Your task to perform on an android device: turn notification dots off Image 0: 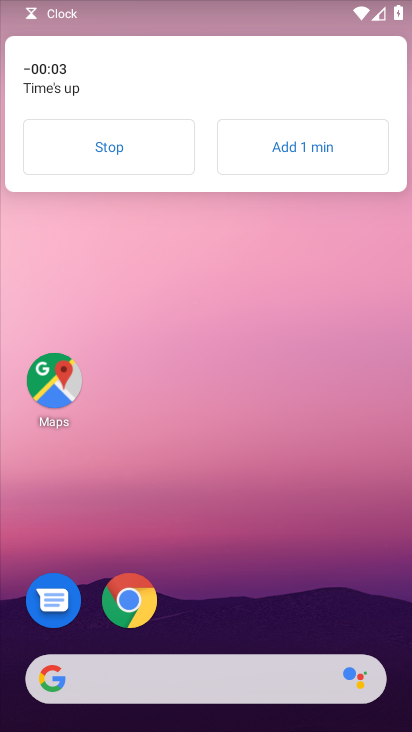
Step 0: drag from (218, 726) to (209, 107)
Your task to perform on an android device: turn notification dots off Image 1: 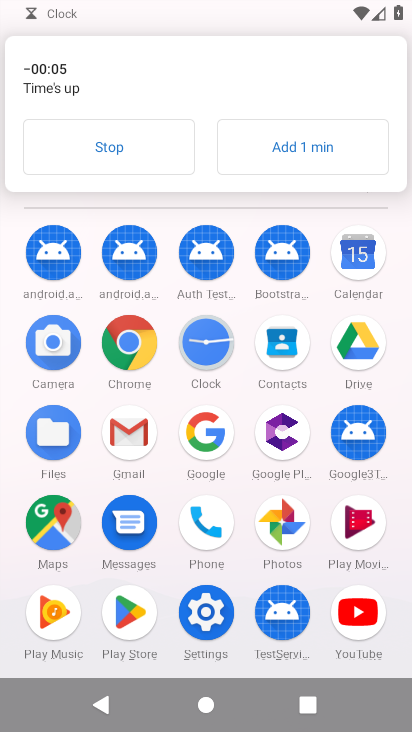
Step 1: click (204, 612)
Your task to perform on an android device: turn notification dots off Image 2: 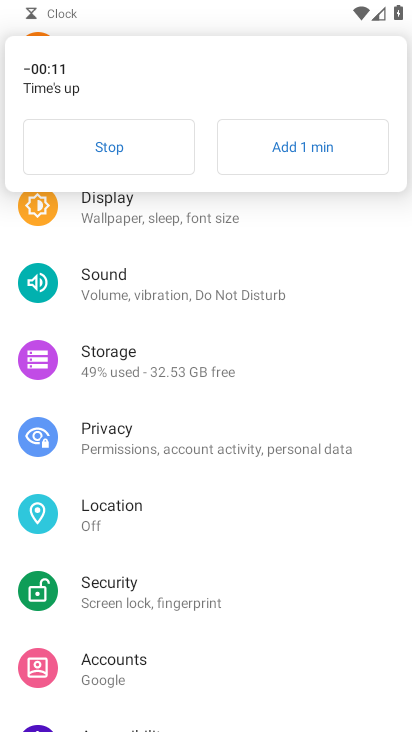
Step 2: click (121, 143)
Your task to perform on an android device: turn notification dots off Image 3: 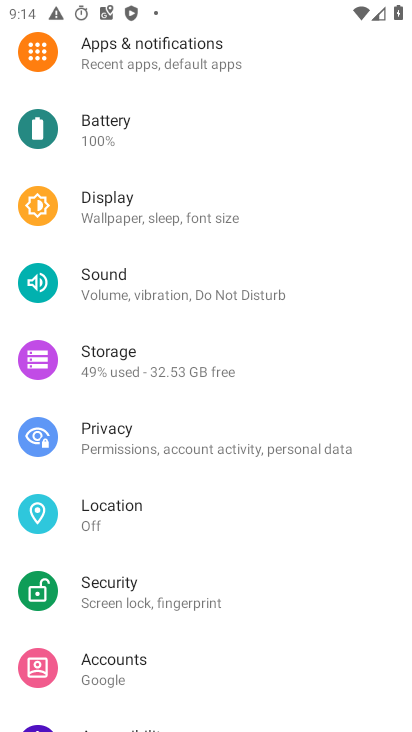
Step 3: drag from (160, 145) to (167, 303)
Your task to perform on an android device: turn notification dots off Image 4: 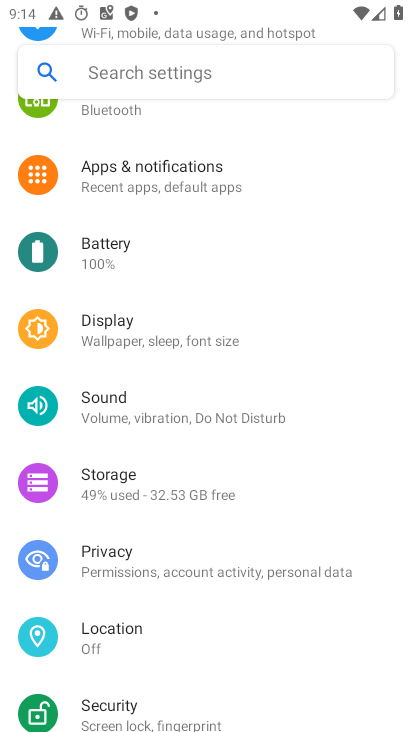
Step 4: click (150, 186)
Your task to perform on an android device: turn notification dots off Image 5: 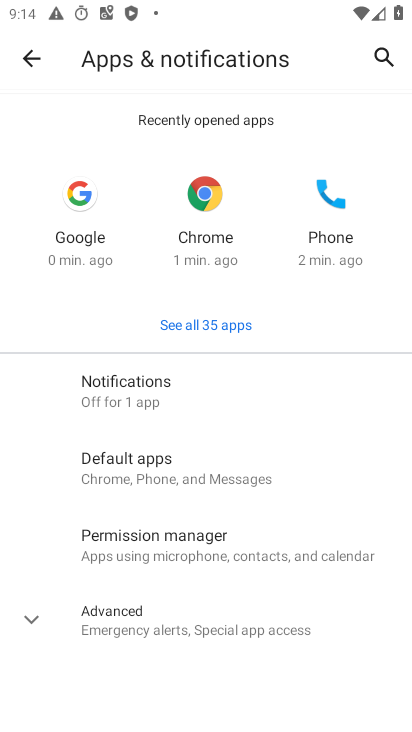
Step 5: click (131, 389)
Your task to perform on an android device: turn notification dots off Image 6: 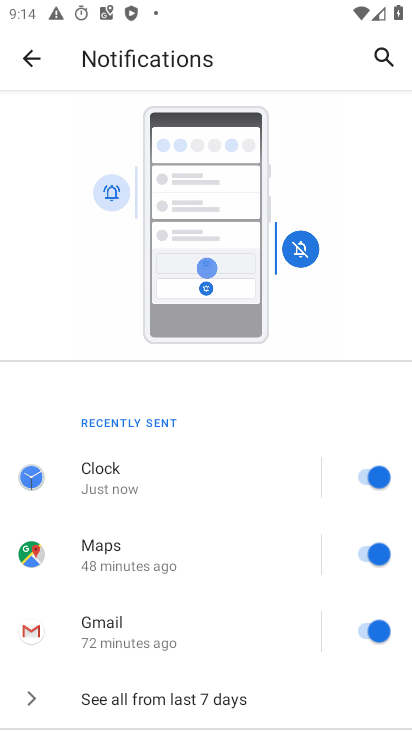
Step 6: drag from (218, 687) to (228, 358)
Your task to perform on an android device: turn notification dots off Image 7: 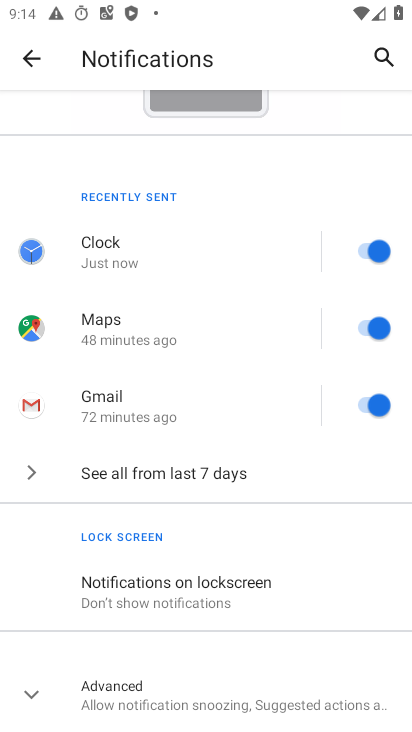
Step 7: click (166, 699)
Your task to perform on an android device: turn notification dots off Image 8: 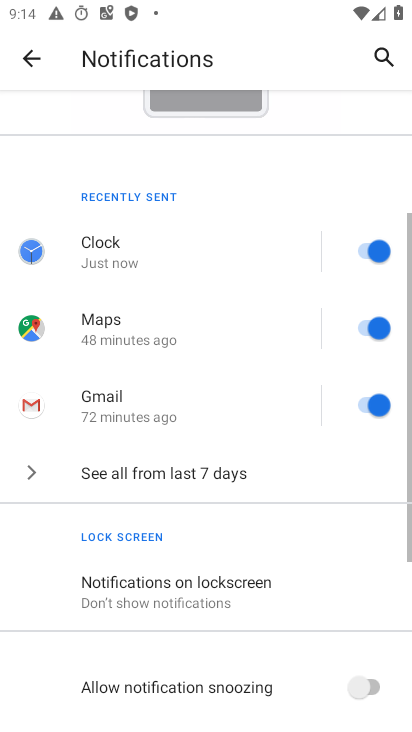
Step 8: task complete